Your task to perform on an android device: What's a good restaurant in Philadelphia? Image 0: 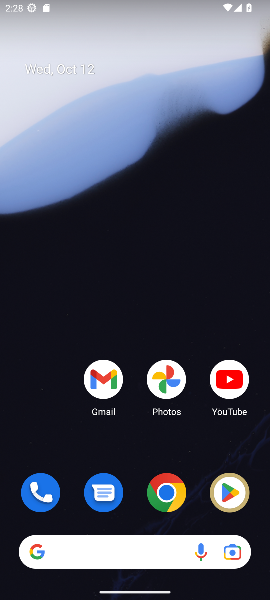
Step 0: click (171, 505)
Your task to perform on an android device: What's a good restaurant in Philadelphia? Image 1: 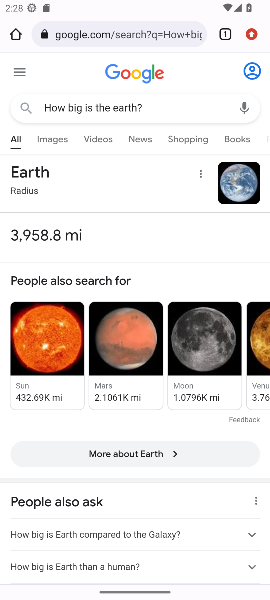
Step 1: click (140, 41)
Your task to perform on an android device: What's a good restaurant in Philadelphia? Image 2: 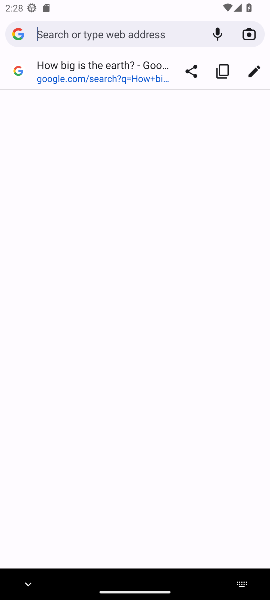
Step 2: type "a good restaurant in Philadelphia"
Your task to perform on an android device: What's a good restaurant in Philadelphia? Image 3: 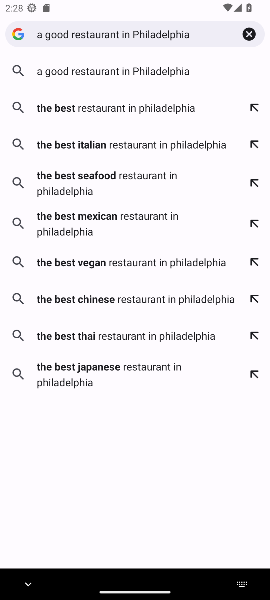
Step 3: click (92, 73)
Your task to perform on an android device: What's a good restaurant in Philadelphia? Image 4: 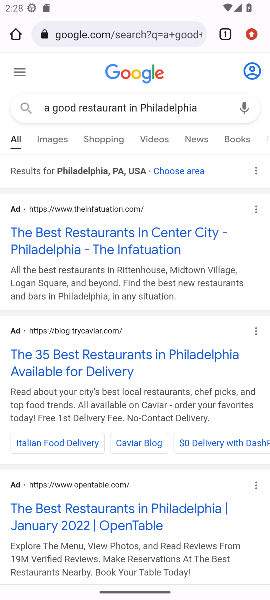
Step 4: click (78, 248)
Your task to perform on an android device: What's a good restaurant in Philadelphia? Image 5: 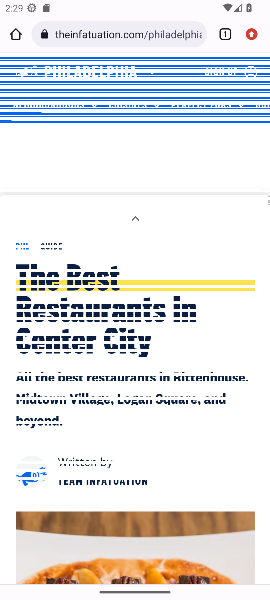
Step 5: task complete